Your task to perform on an android device: Do I have any events tomorrow? Image 0: 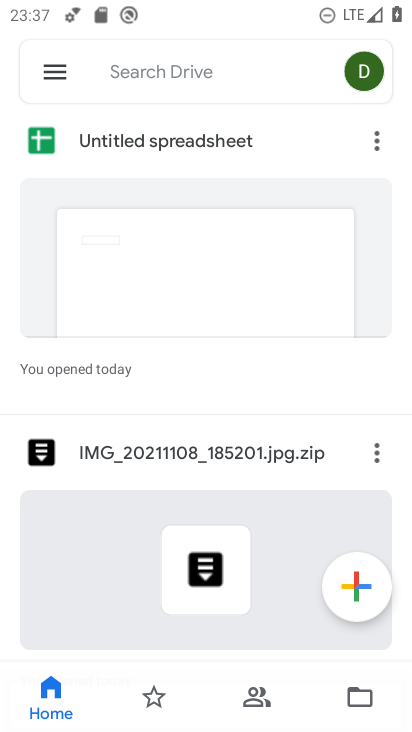
Step 0: press home button
Your task to perform on an android device: Do I have any events tomorrow? Image 1: 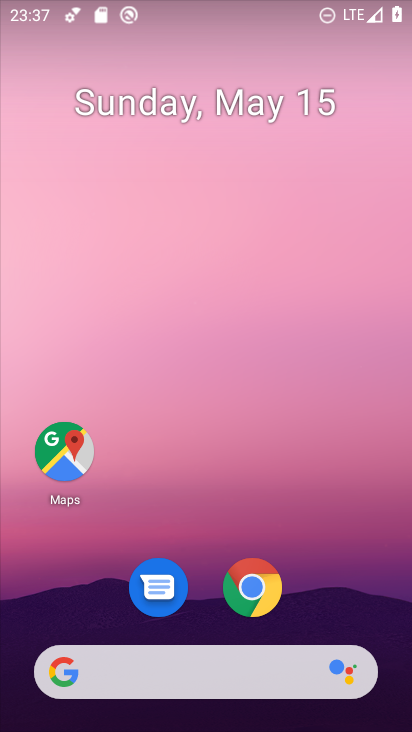
Step 1: drag from (212, 519) to (217, 206)
Your task to perform on an android device: Do I have any events tomorrow? Image 2: 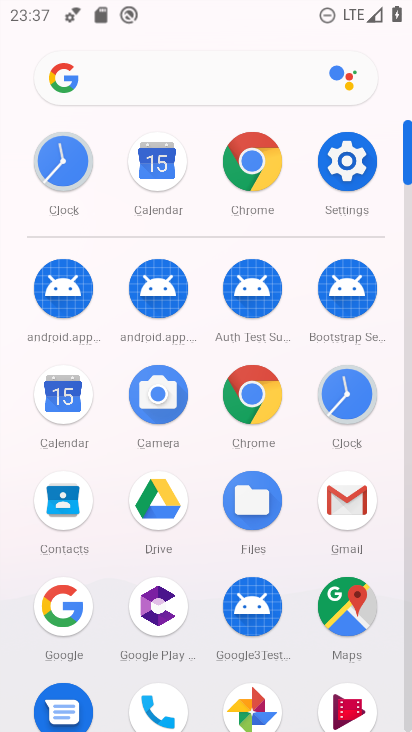
Step 2: click (168, 184)
Your task to perform on an android device: Do I have any events tomorrow? Image 3: 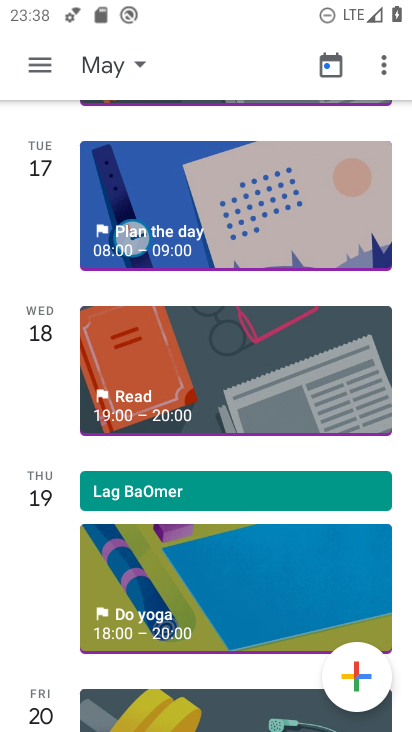
Step 3: click (138, 80)
Your task to perform on an android device: Do I have any events tomorrow? Image 4: 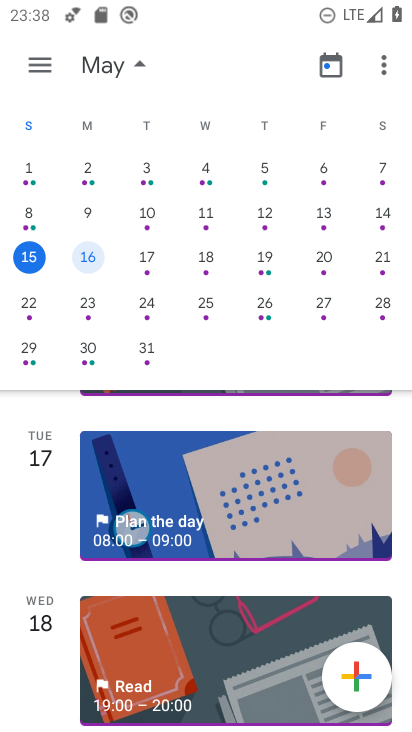
Step 4: click (80, 253)
Your task to perform on an android device: Do I have any events tomorrow? Image 5: 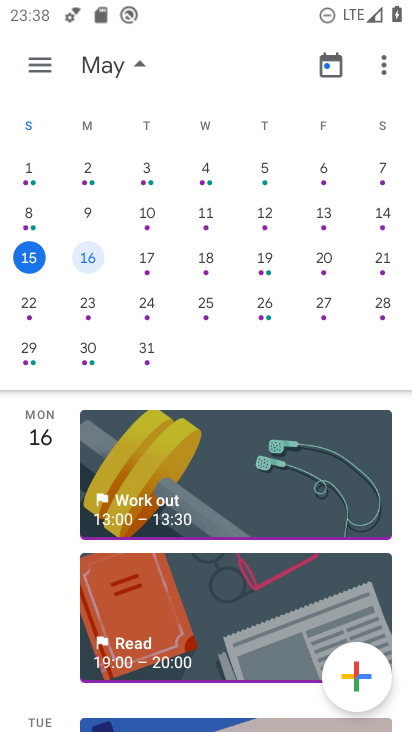
Step 5: task complete